Your task to perform on an android device: Search for vegetarian restaurants on Maps Image 0: 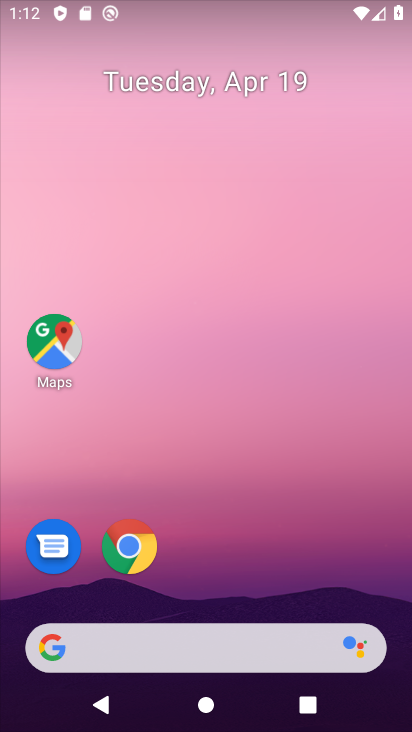
Step 0: click (67, 348)
Your task to perform on an android device: Search for vegetarian restaurants on Maps Image 1: 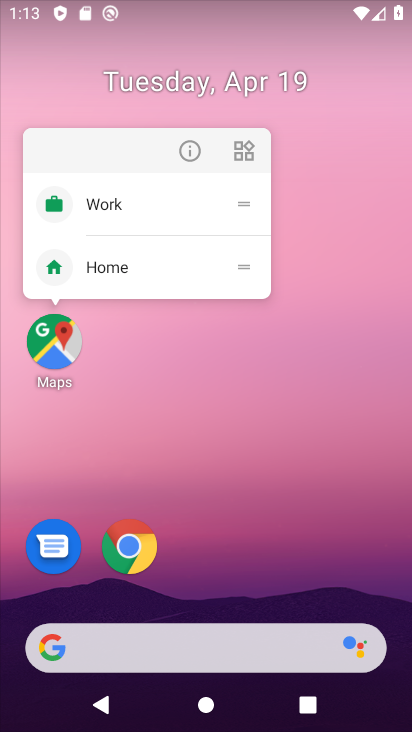
Step 1: click (58, 338)
Your task to perform on an android device: Search for vegetarian restaurants on Maps Image 2: 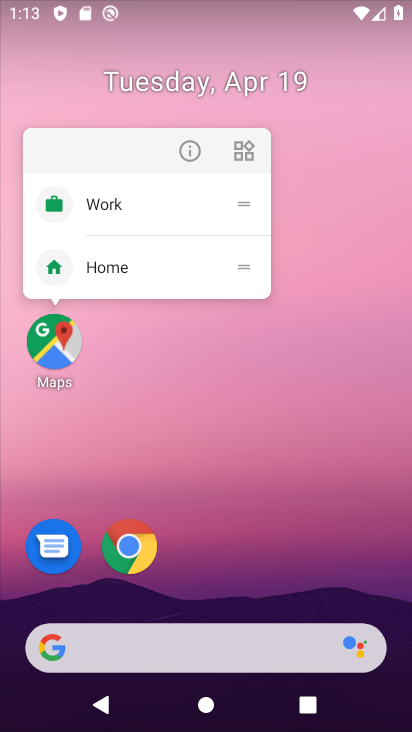
Step 2: click (49, 357)
Your task to perform on an android device: Search for vegetarian restaurants on Maps Image 3: 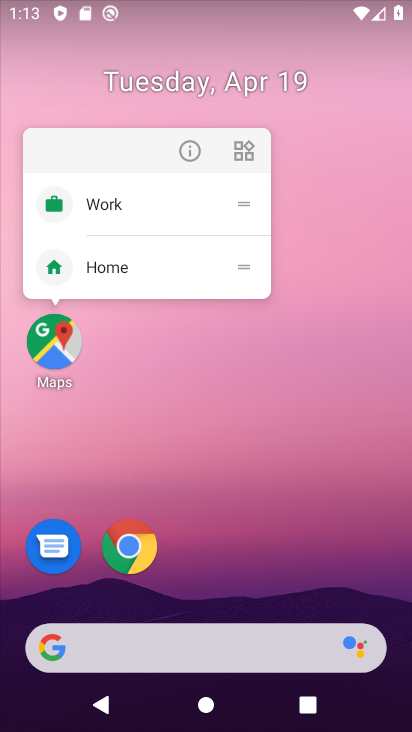
Step 3: click (36, 345)
Your task to perform on an android device: Search for vegetarian restaurants on Maps Image 4: 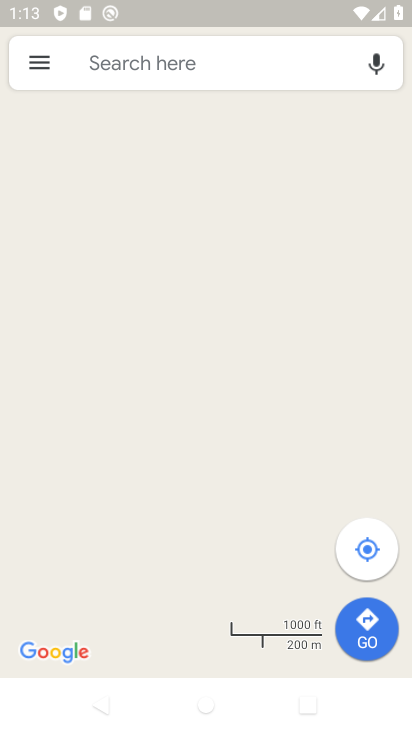
Step 4: click (163, 55)
Your task to perform on an android device: Search for vegetarian restaurants on Maps Image 5: 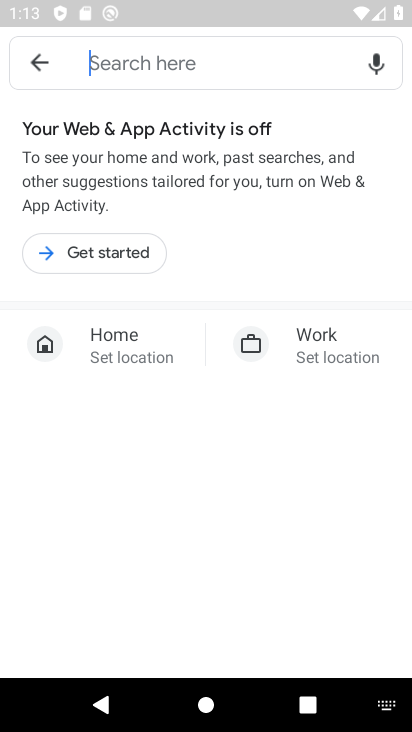
Step 5: click (140, 59)
Your task to perform on an android device: Search for vegetarian restaurants on Maps Image 6: 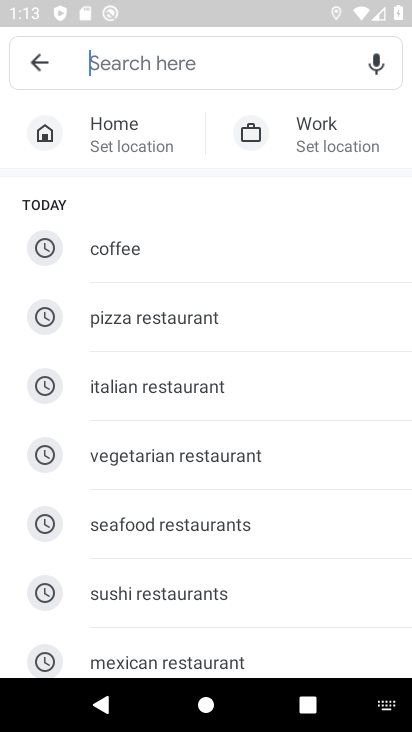
Step 6: type "vegetarian"
Your task to perform on an android device: Search for vegetarian restaurants on Maps Image 7: 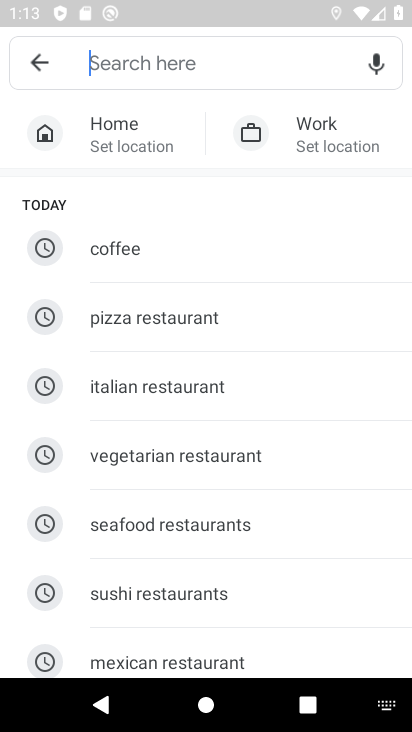
Step 7: click (271, 453)
Your task to perform on an android device: Search for vegetarian restaurants on Maps Image 8: 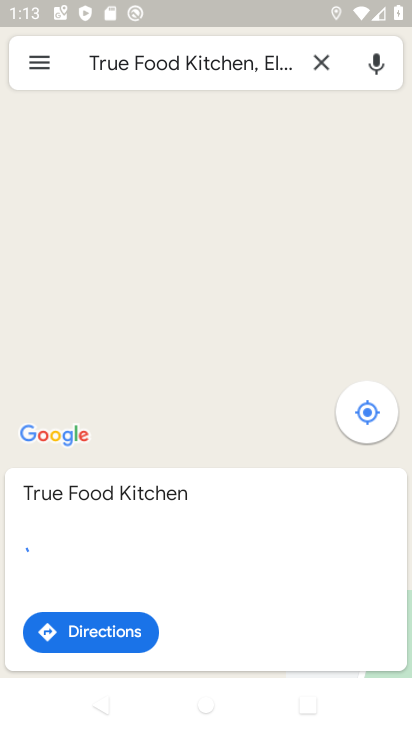
Step 8: click (325, 60)
Your task to perform on an android device: Search for vegetarian restaurants on Maps Image 9: 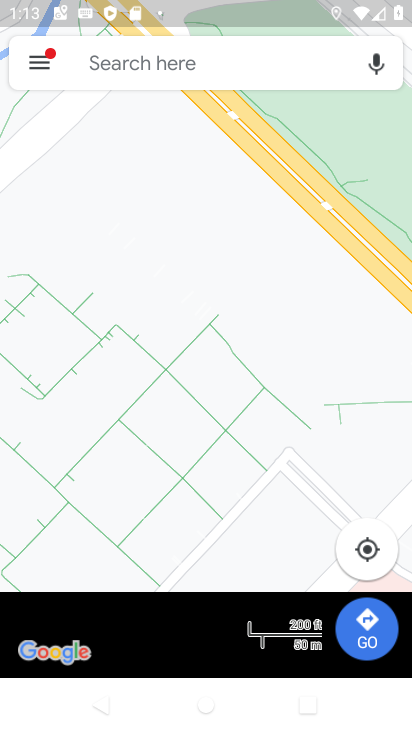
Step 9: click (212, 64)
Your task to perform on an android device: Search for vegetarian restaurants on Maps Image 10: 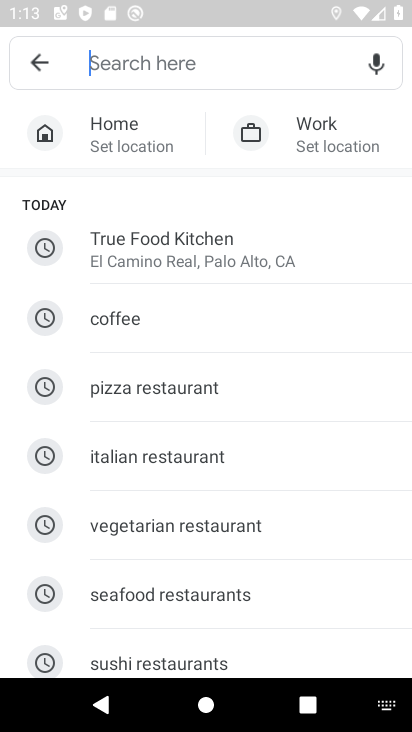
Step 10: click (164, 524)
Your task to perform on an android device: Search for vegetarian restaurants on Maps Image 11: 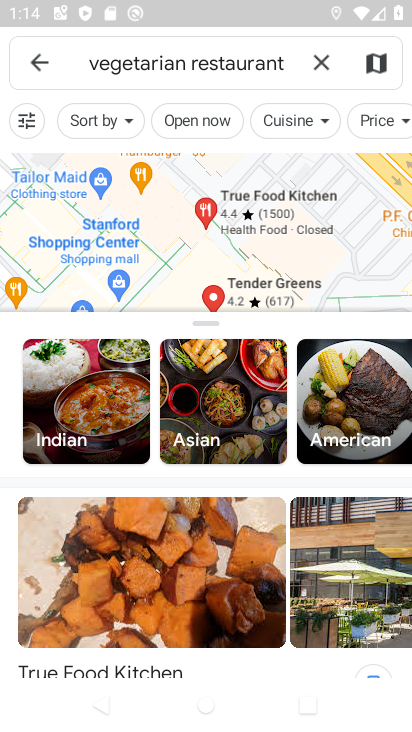
Step 11: task complete